Your task to perform on an android device: add a contact Image 0: 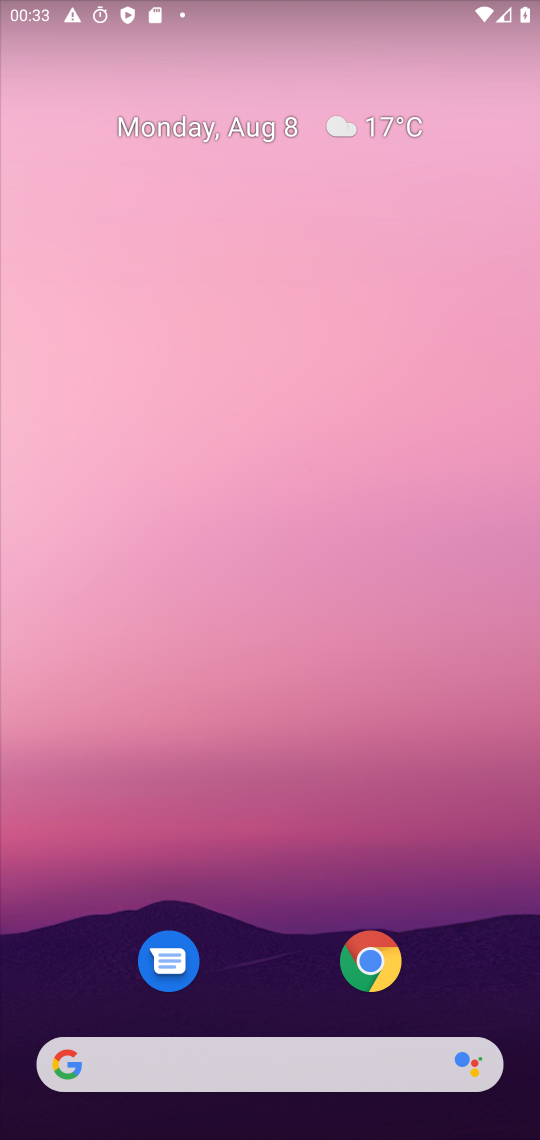
Step 0: drag from (254, 1047) to (538, 246)
Your task to perform on an android device: add a contact Image 1: 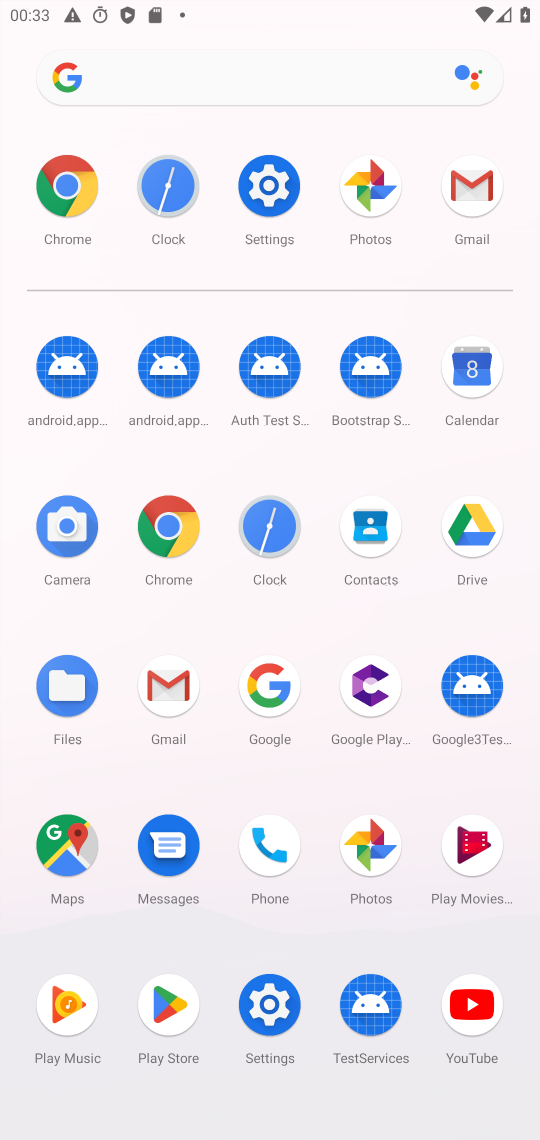
Step 1: click (377, 514)
Your task to perform on an android device: add a contact Image 2: 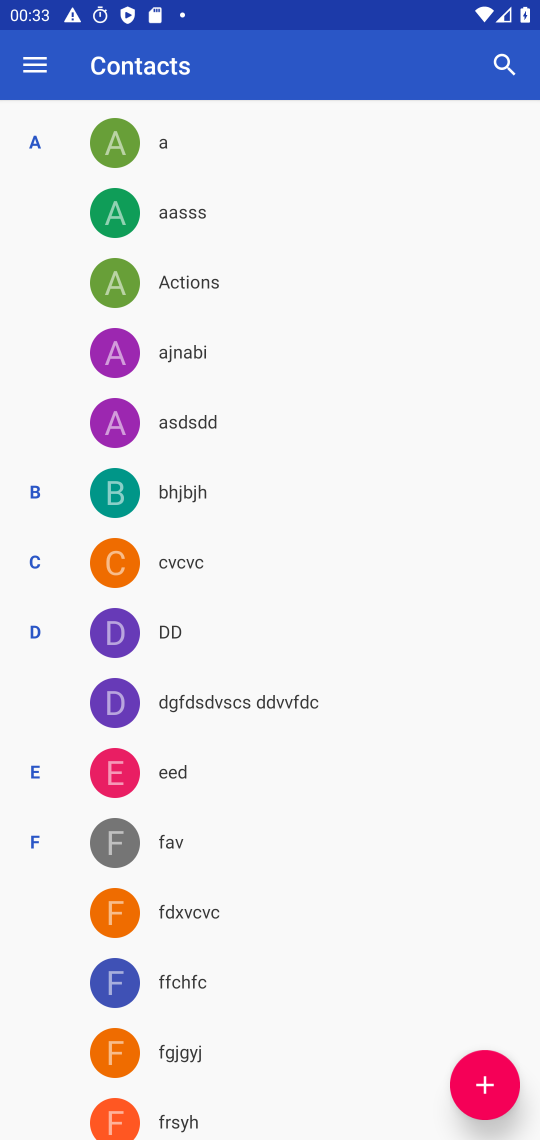
Step 2: click (486, 1066)
Your task to perform on an android device: add a contact Image 3: 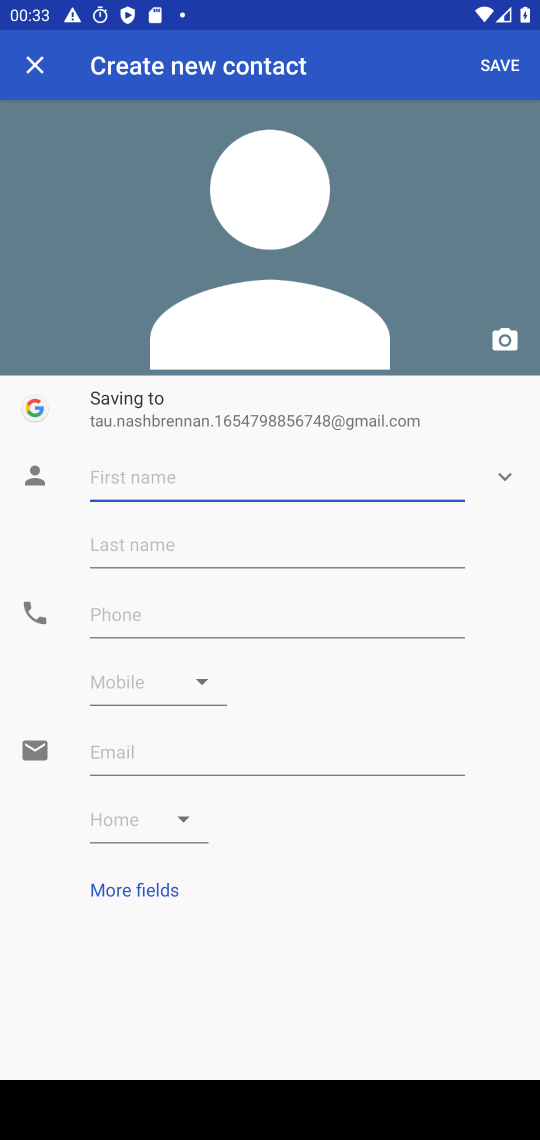
Step 3: type "hffhgd"
Your task to perform on an android device: add a contact Image 4: 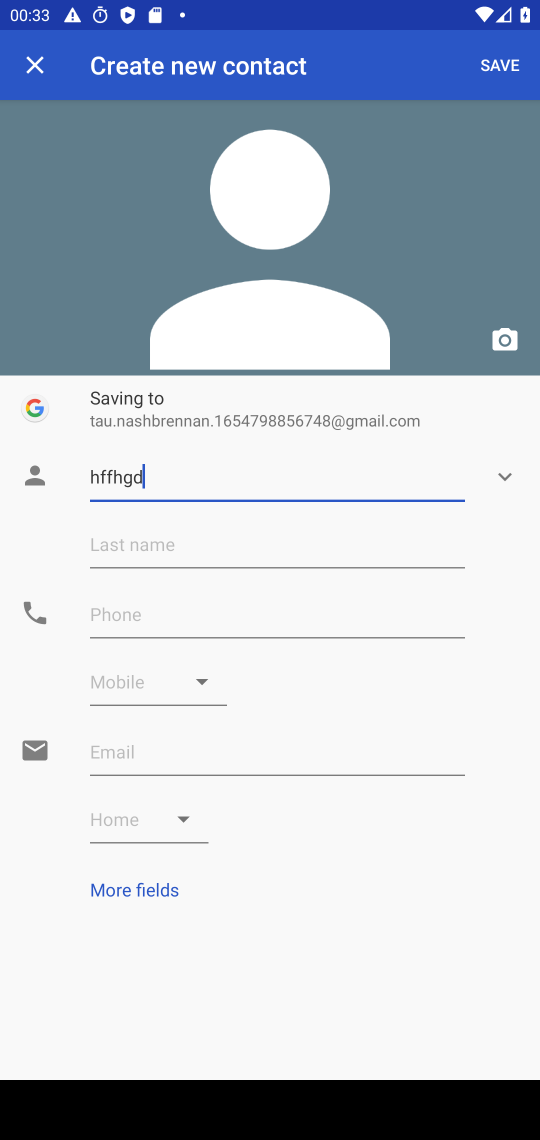
Step 4: click (231, 598)
Your task to perform on an android device: add a contact Image 5: 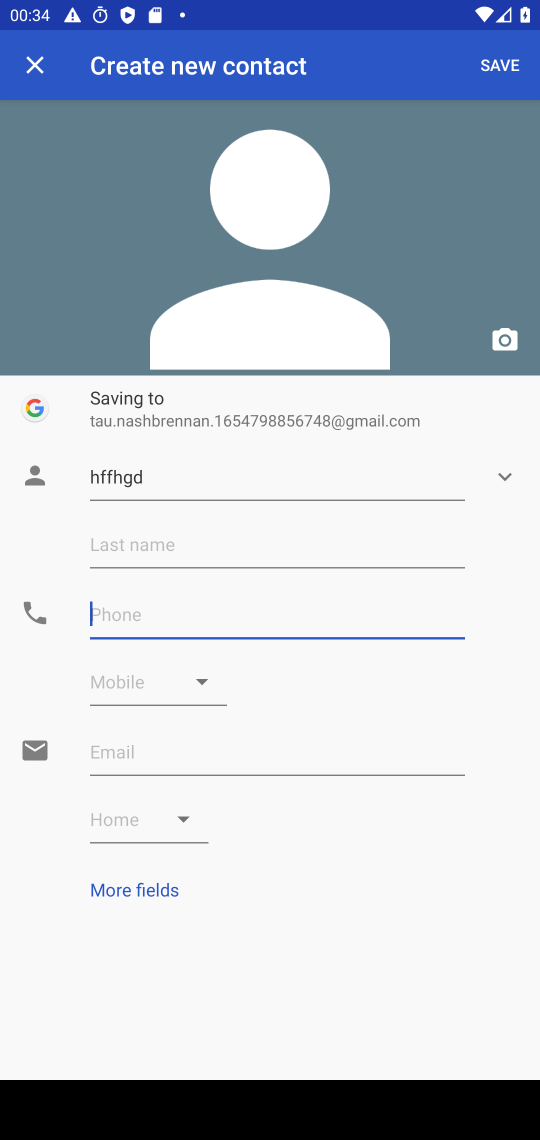
Step 5: type "8786567657"
Your task to perform on an android device: add a contact Image 6: 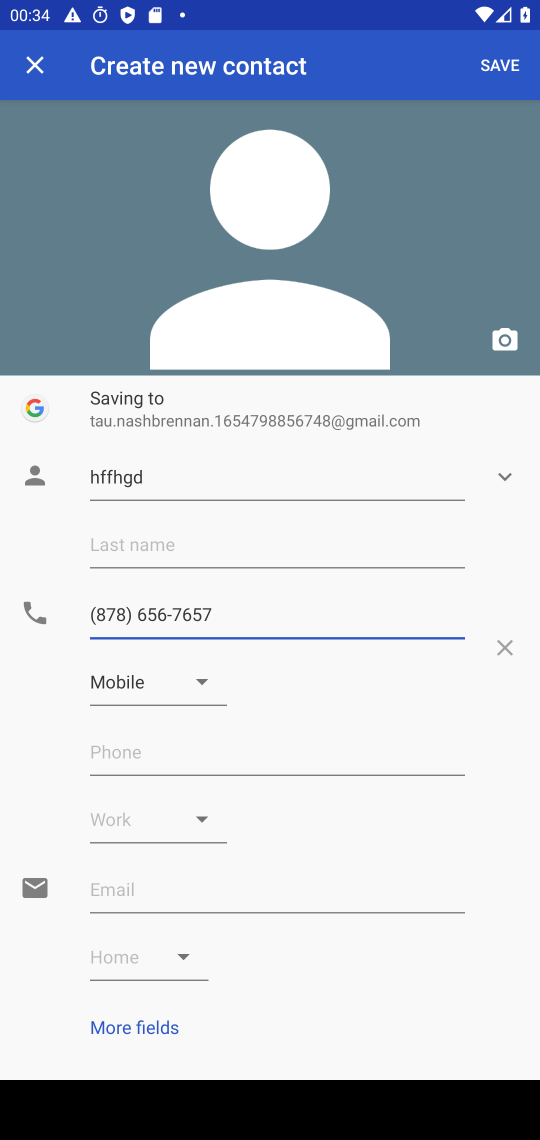
Step 6: click (485, 61)
Your task to perform on an android device: add a contact Image 7: 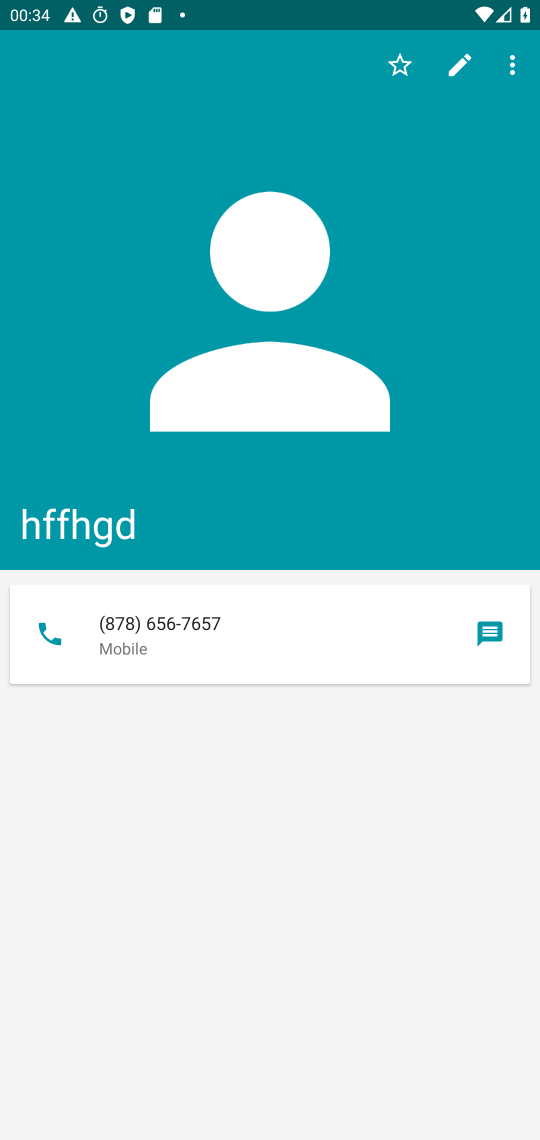
Step 7: task complete